Your task to perform on an android device: check android version Image 0: 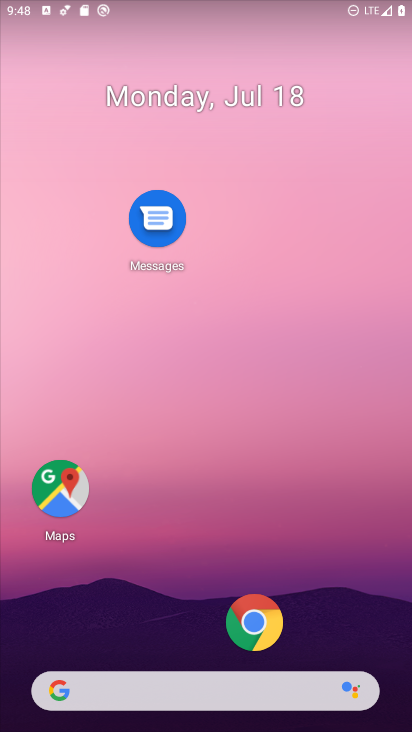
Step 0: press home button
Your task to perform on an android device: check android version Image 1: 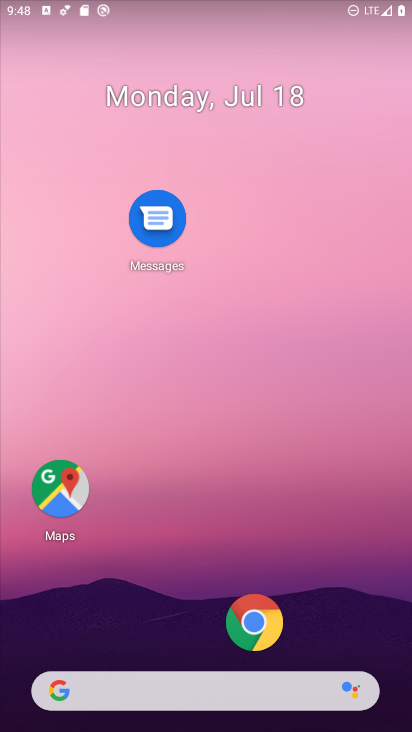
Step 1: drag from (357, 529) to (366, 109)
Your task to perform on an android device: check android version Image 2: 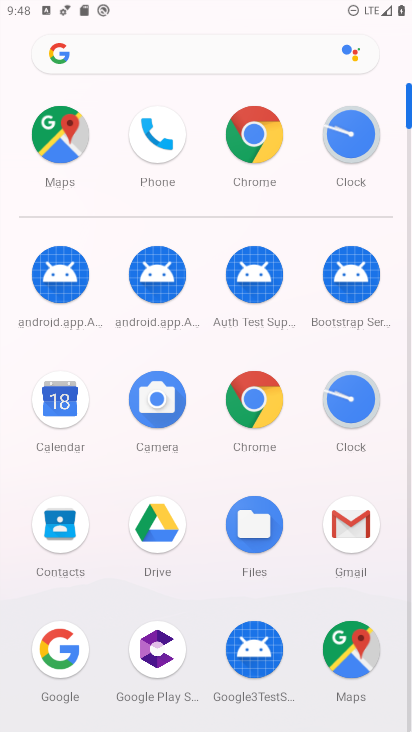
Step 2: drag from (234, 523) to (279, 169)
Your task to perform on an android device: check android version Image 3: 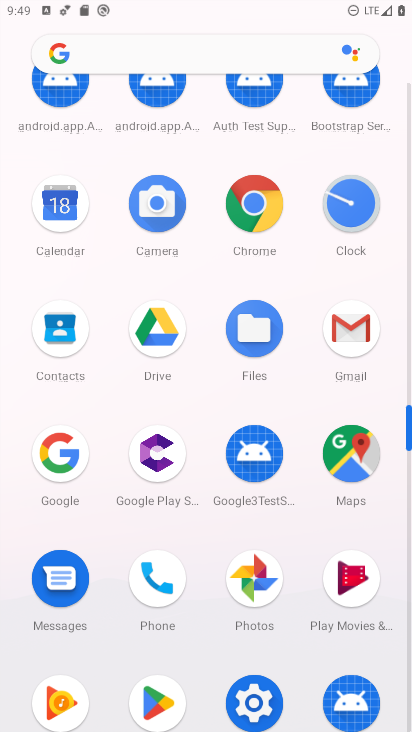
Step 3: drag from (301, 506) to (294, 130)
Your task to perform on an android device: check android version Image 4: 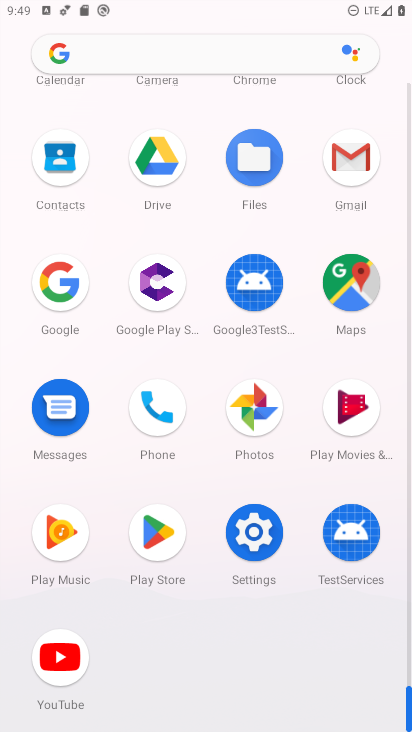
Step 4: click (264, 542)
Your task to perform on an android device: check android version Image 5: 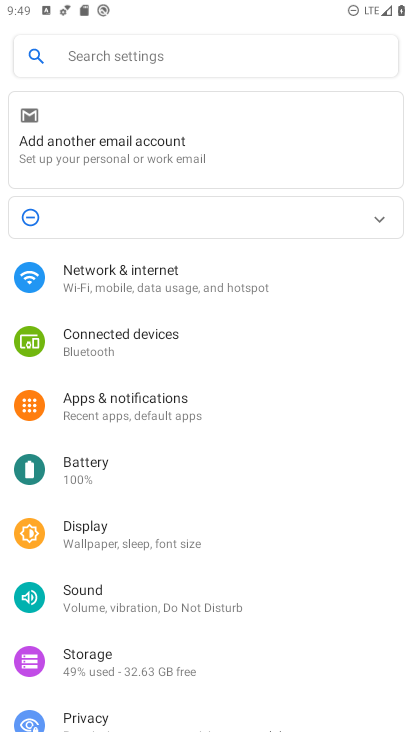
Step 5: drag from (198, 552) to (240, 238)
Your task to perform on an android device: check android version Image 6: 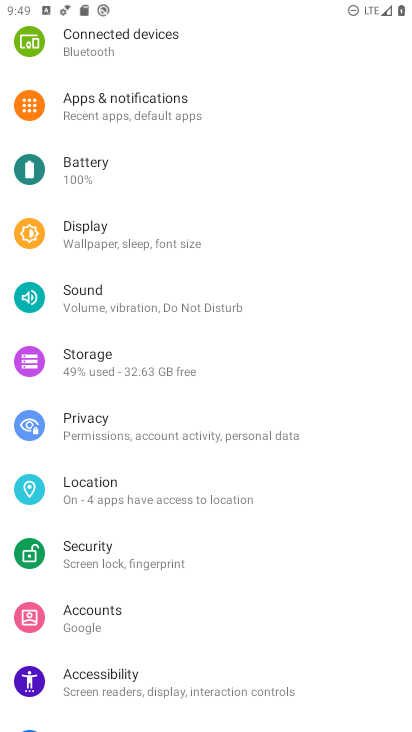
Step 6: drag from (201, 565) to (185, 172)
Your task to perform on an android device: check android version Image 7: 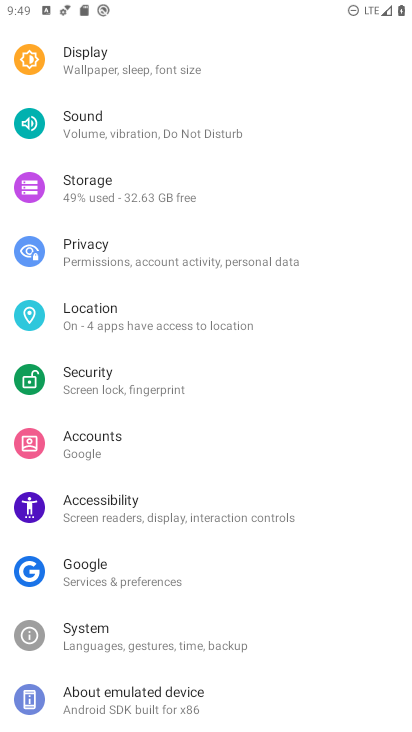
Step 7: click (146, 698)
Your task to perform on an android device: check android version Image 8: 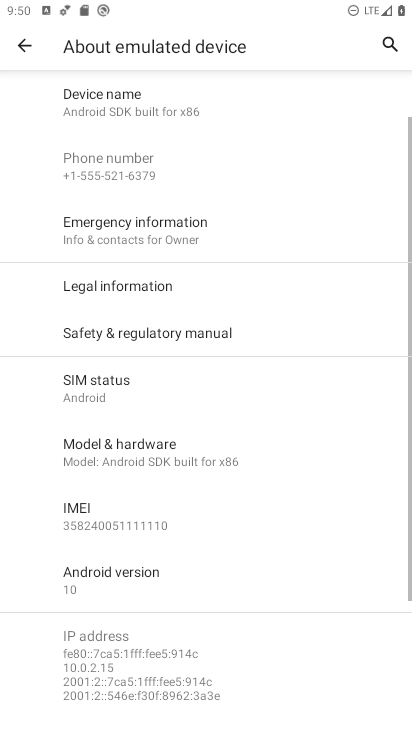
Step 8: task complete